Your task to perform on an android device: turn off data saver in the chrome app Image 0: 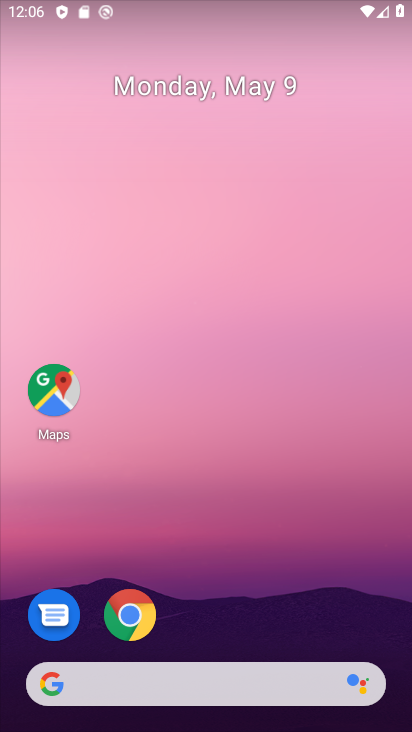
Step 0: click (129, 616)
Your task to perform on an android device: turn off data saver in the chrome app Image 1: 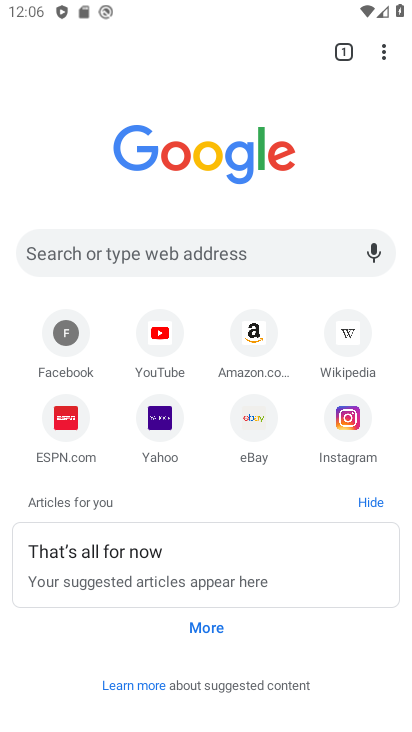
Step 1: click (385, 49)
Your task to perform on an android device: turn off data saver in the chrome app Image 2: 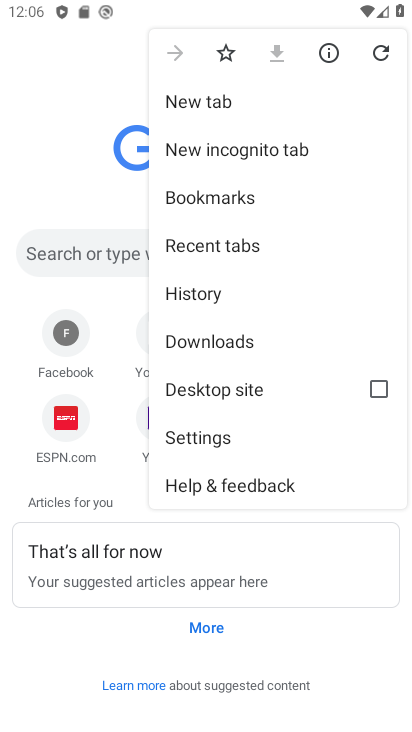
Step 2: click (197, 437)
Your task to perform on an android device: turn off data saver in the chrome app Image 3: 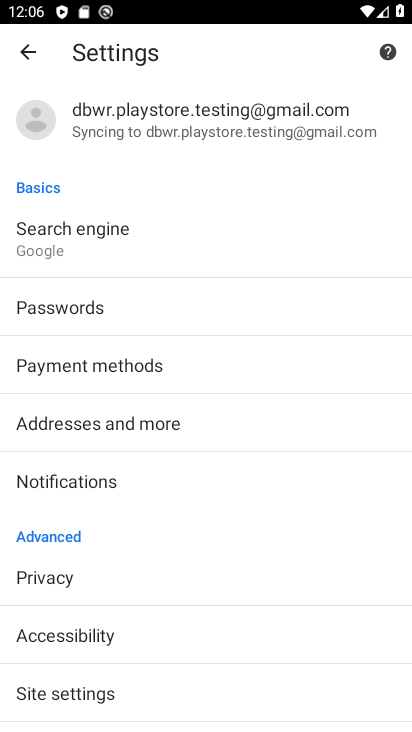
Step 3: drag from (145, 590) to (200, 425)
Your task to perform on an android device: turn off data saver in the chrome app Image 4: 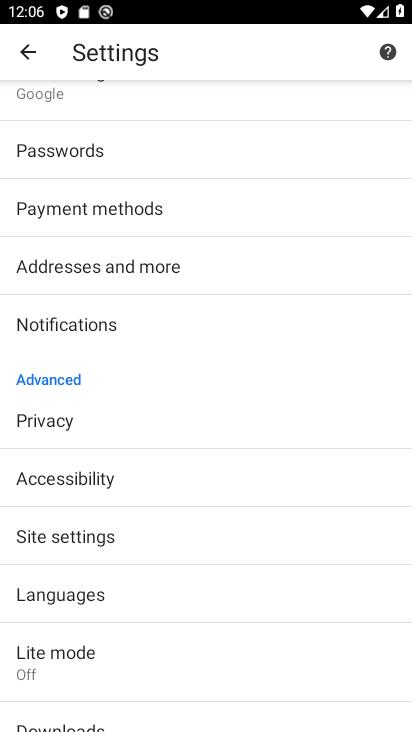
Step 4: drag from (153, 581) to (223, 474)
Your task to perform on an android device: turn off data saver in the chrome app Image 5: 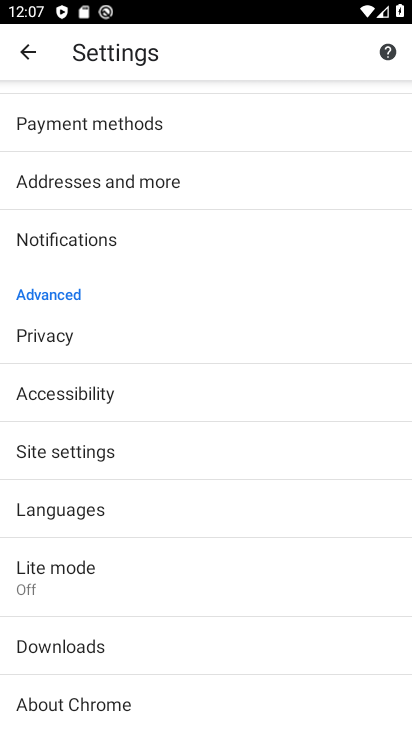
Step 5: click (120, 578)
Your task to perform on an android device: turn off data saver in the chrome app Image 6: 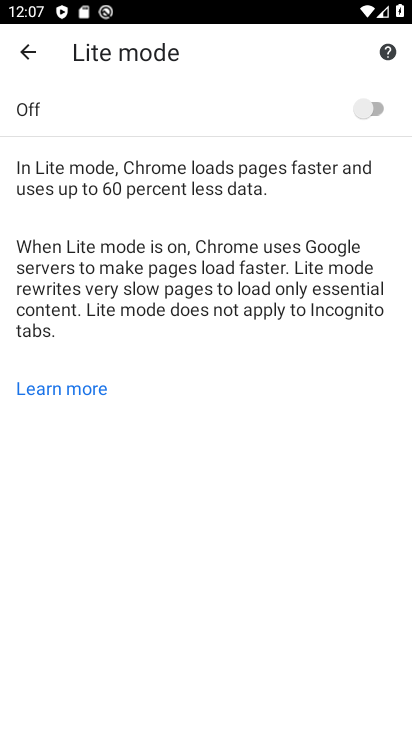
Step 6: task complete